Your task to perform on an android device: open a new tab in the chrome app Image 0: 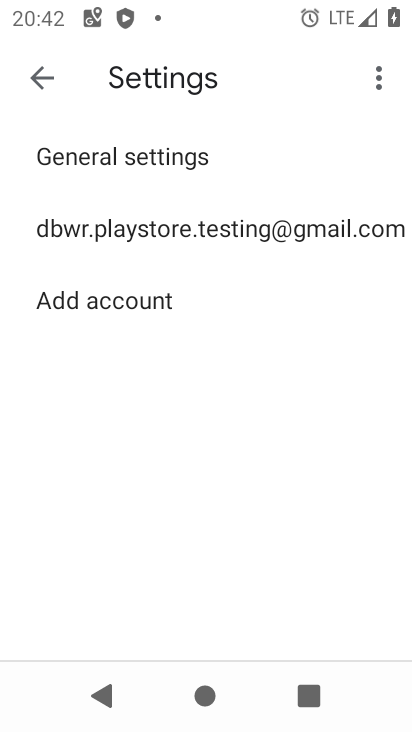
Step 0: press home button
Your task to perform on an android device: open a new tab in the chrome app Image 1: 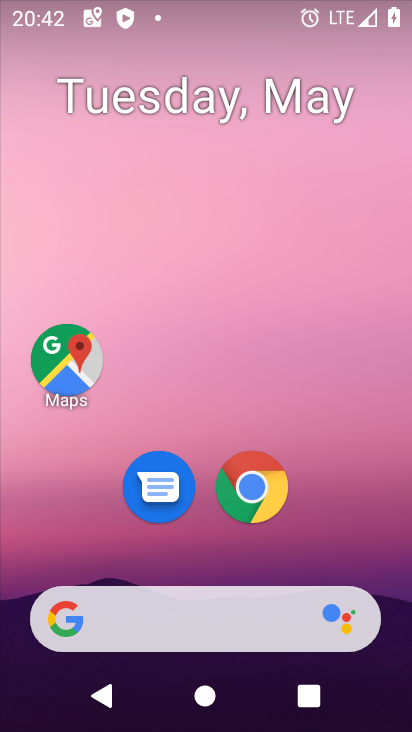
Step 1: click (256, 490)
Your task to perform on an android device: open a new tab in the chrome app Image 2: 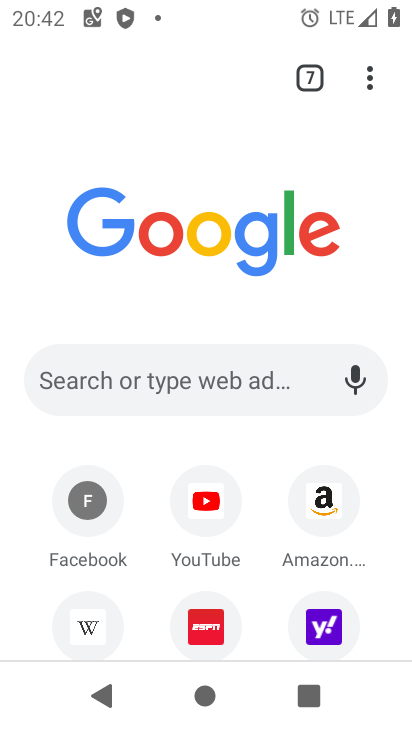
Step 2: click (369, 73)
Your task to perform on an android device: open a new tab in the chrome app Image 3: 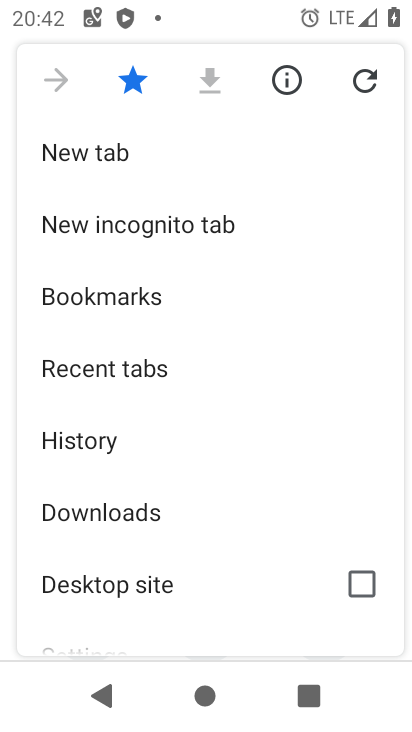
Step 3: click (105, 149)
Your task to perform on an android device: open a new tab in the chrome app Image 4: 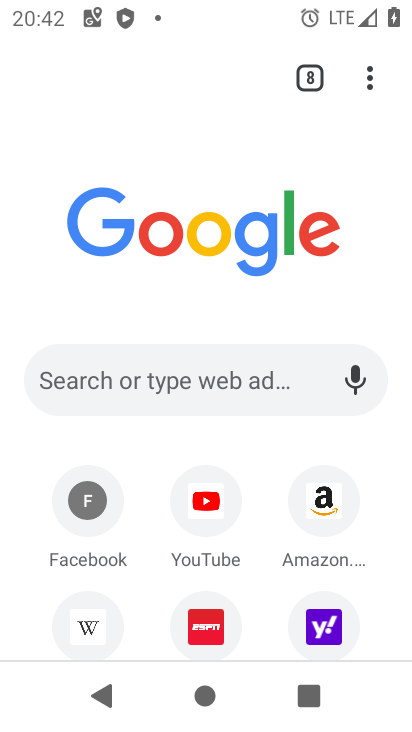
Step 4: task complete